Your task to perform on an android device: check google app version Image 0: 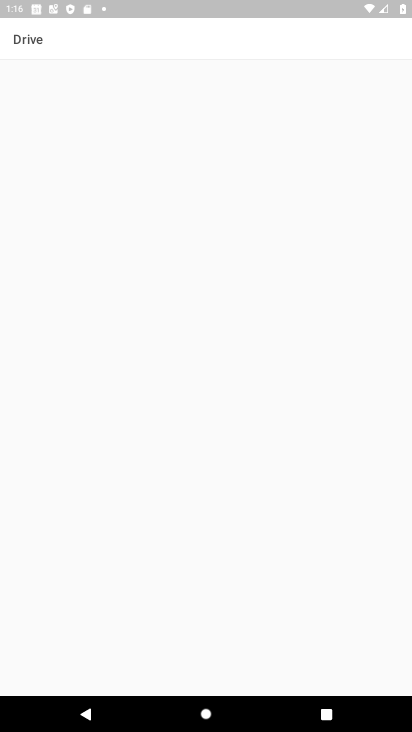
Step 0: press home button
Your task to perform on an android device: check google app version Image 1: 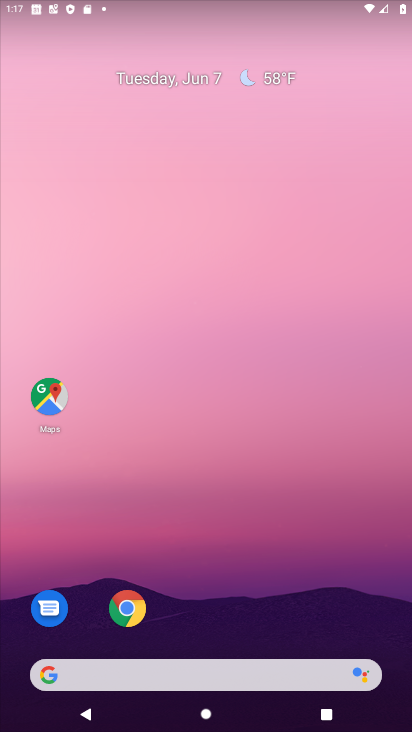
Step 1: drag from (177, 597) to (266, 129)
Your task to perform on an android device: check google app version Image 2: 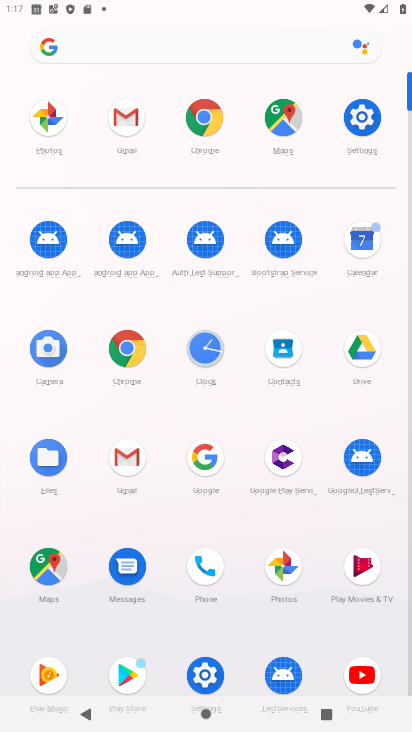
Step 2: click (203, 464)
Your task to perform on an android device: check google app version Image 3: 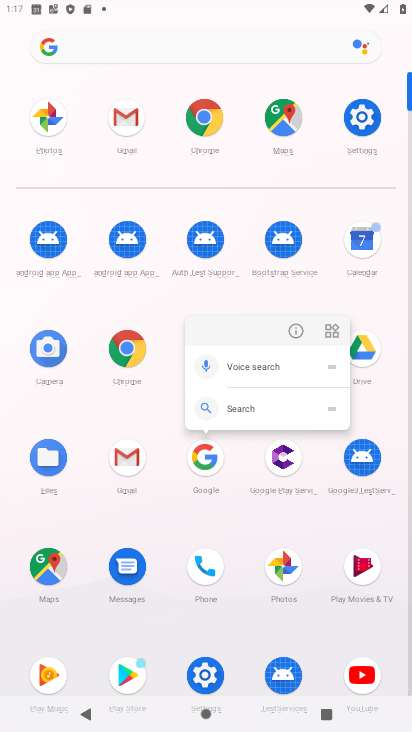
Step 3: click (303, 334)
Your task to perform on an android device: check google app version Image 4: 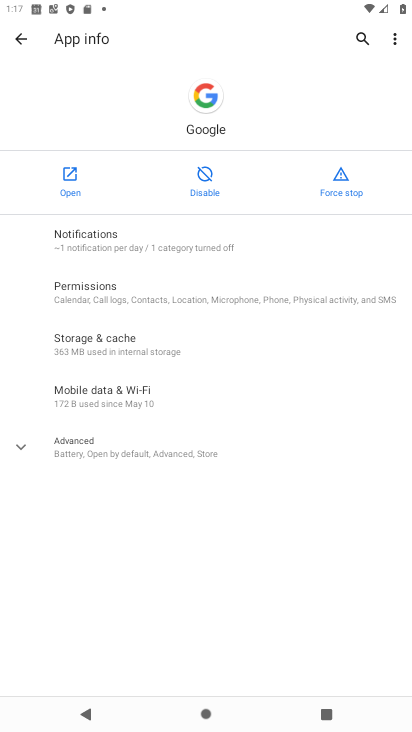
Step 4: click (194, 447)
Your task to perform on an android device: check google app version Image 5: 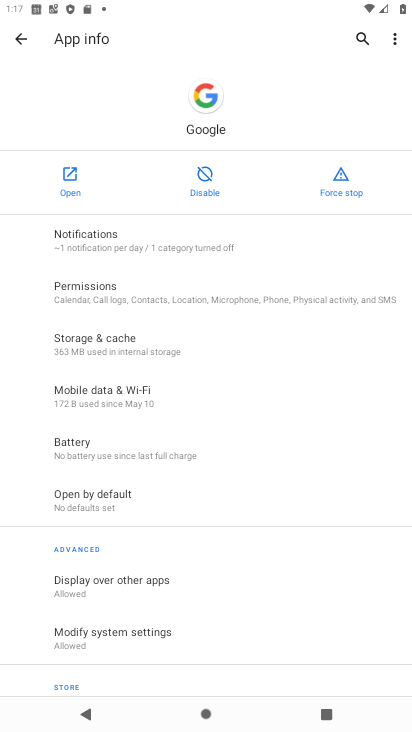
Step 5: task complete